Your task to perform on an android device: Go to Google maps Image 0: 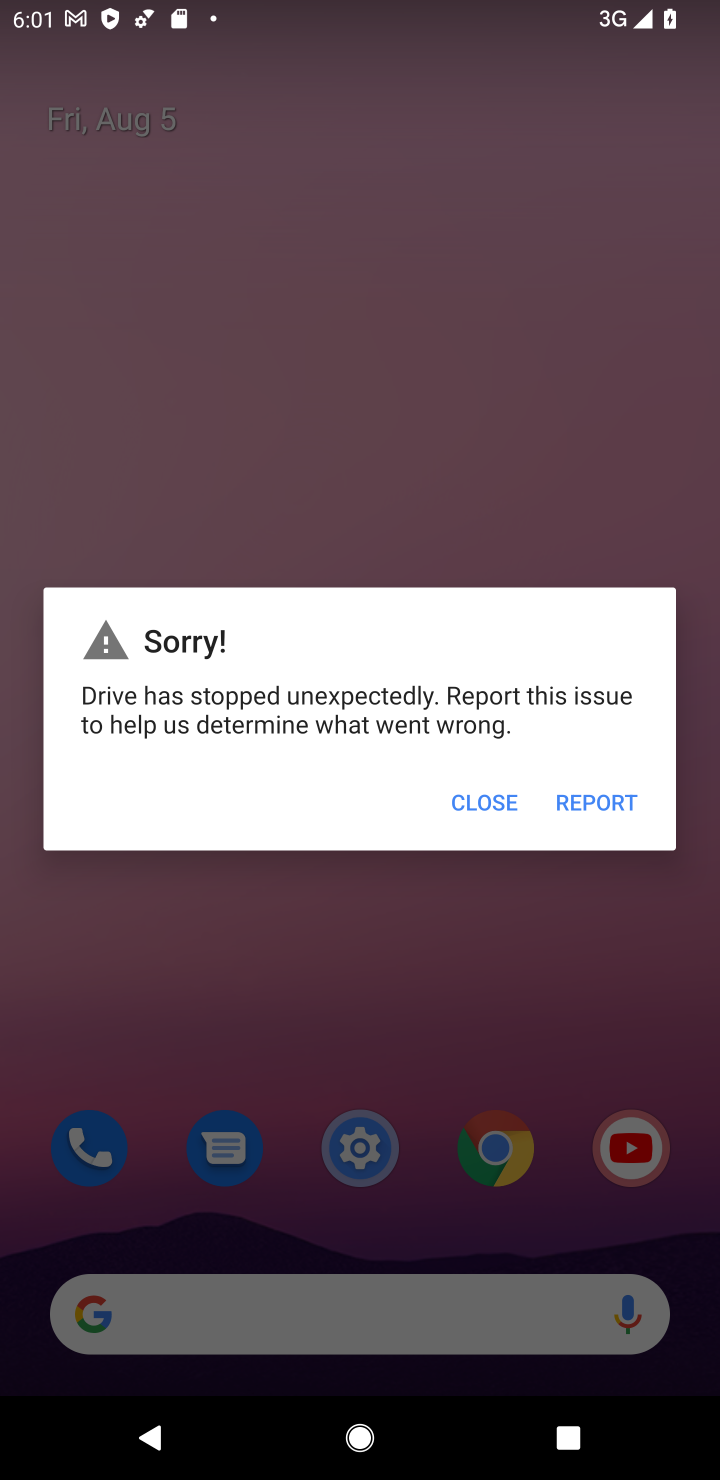
Step 0: press home button
Your task to perform on an android device: Go to Google maps Image 1: 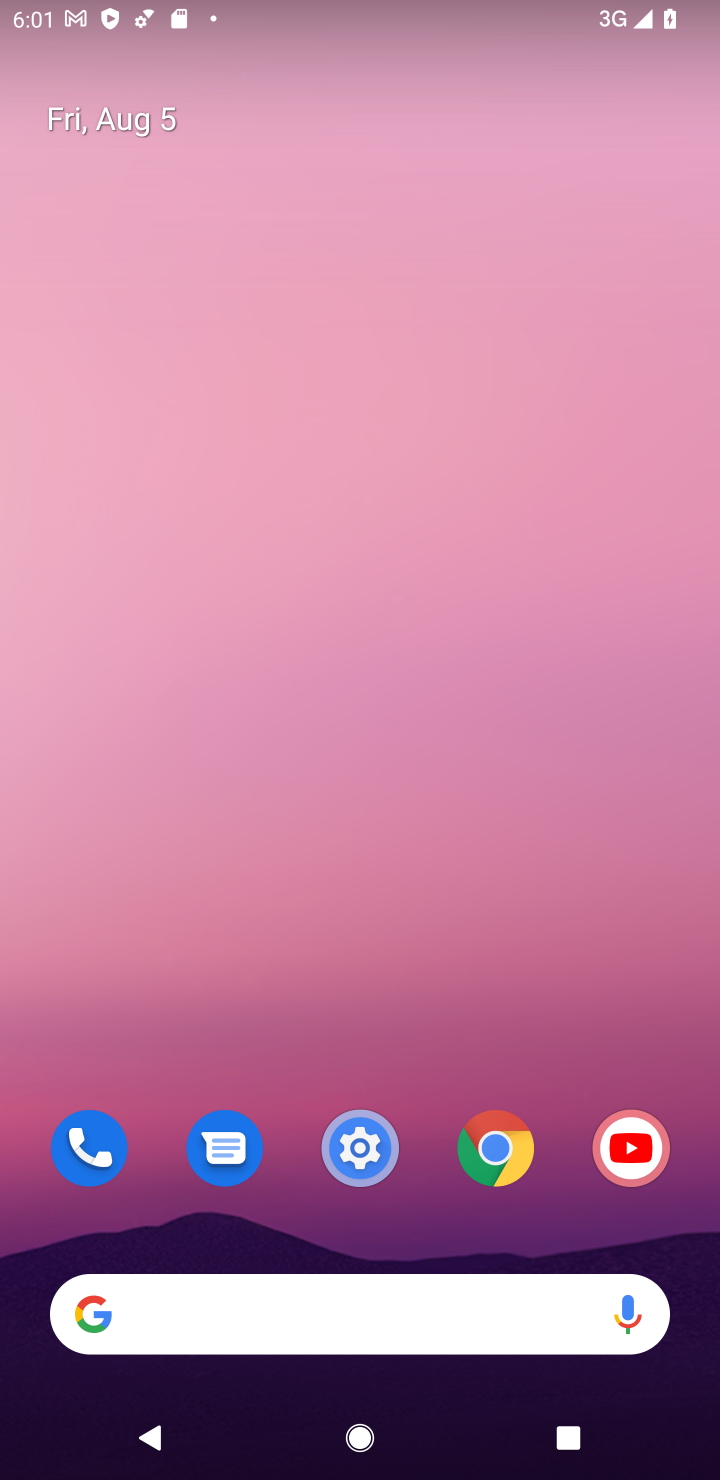
Step 1: drag from (419, 1046) to (293, 325)
Your task to perform on an android device: Go to Google maps Image 2: 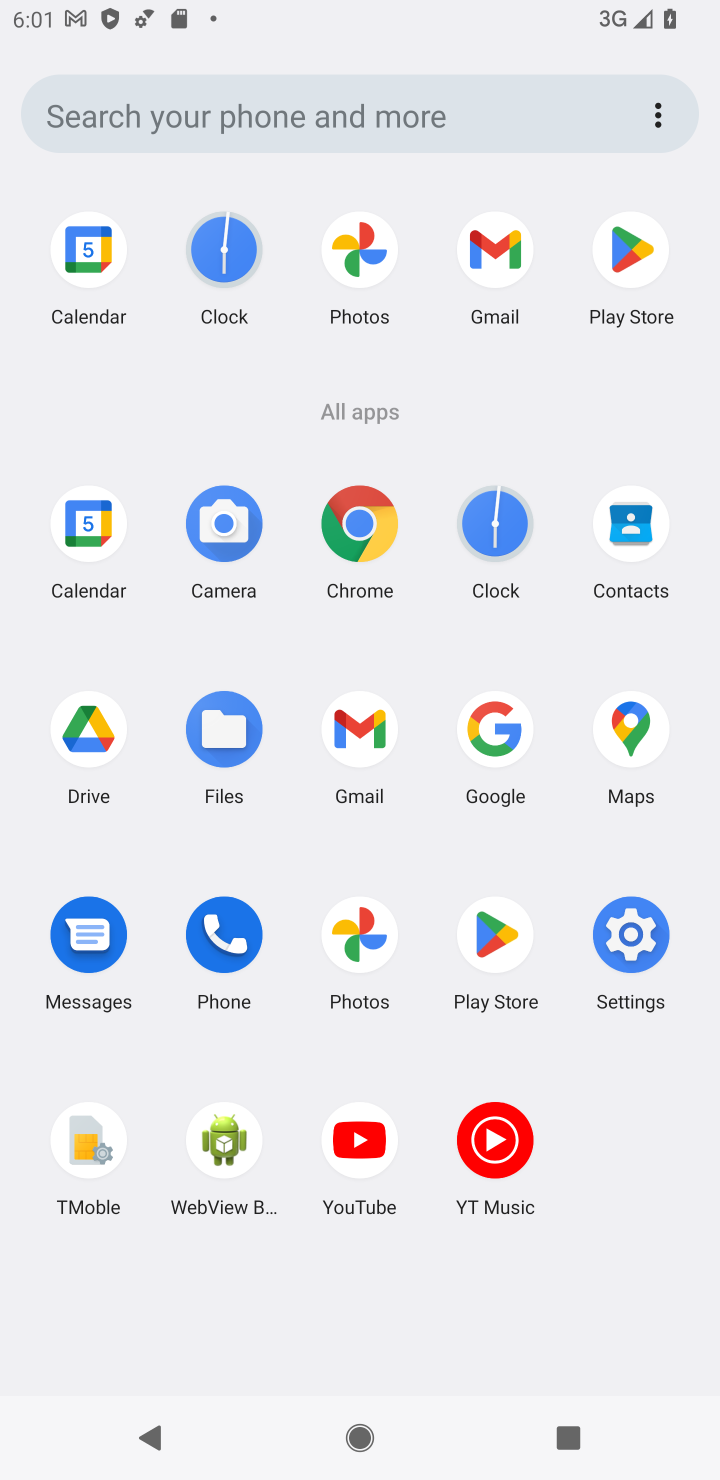
Step 2: click (644, 727)
Your task to perform on an android device: Go to Google maps Image 3: 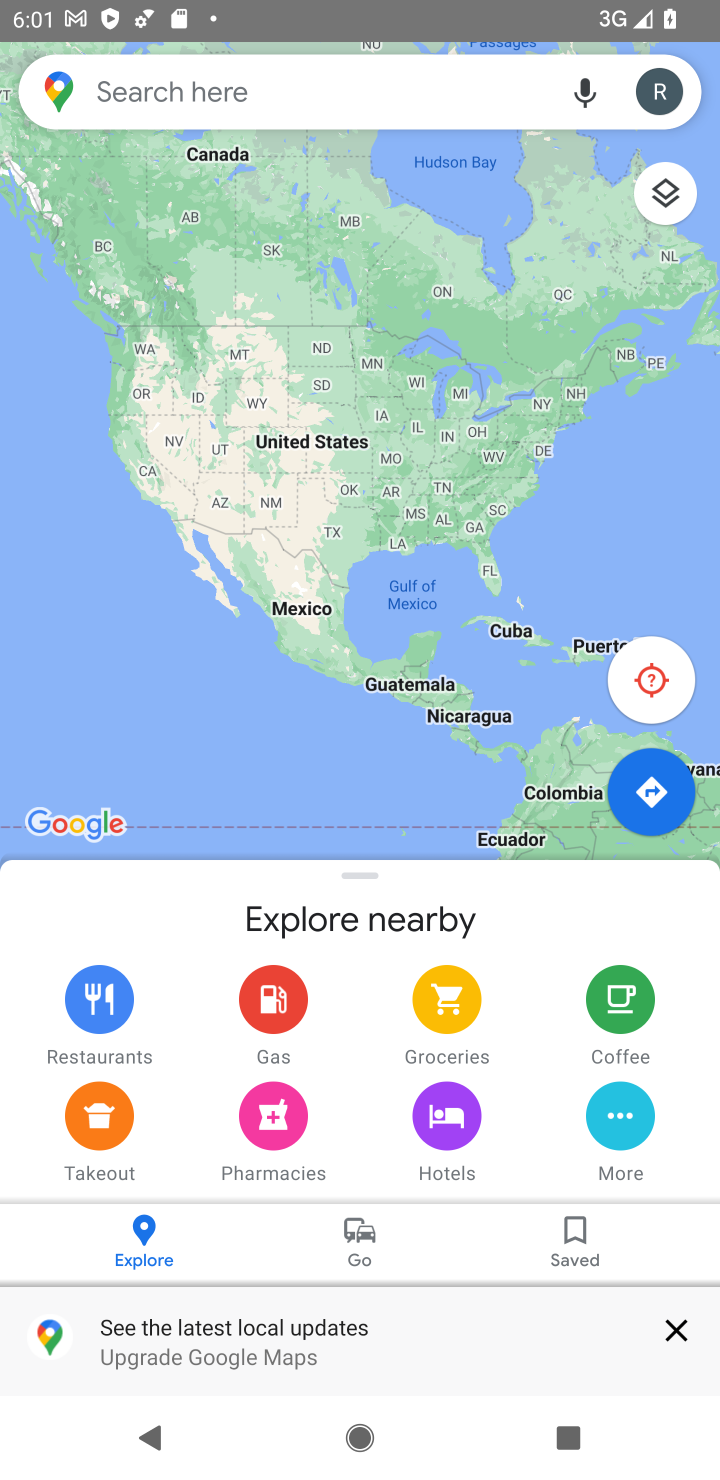
Step 3: task complete